Your task to perform on an android device: Search for sushi restaurants on Maps Image 0: 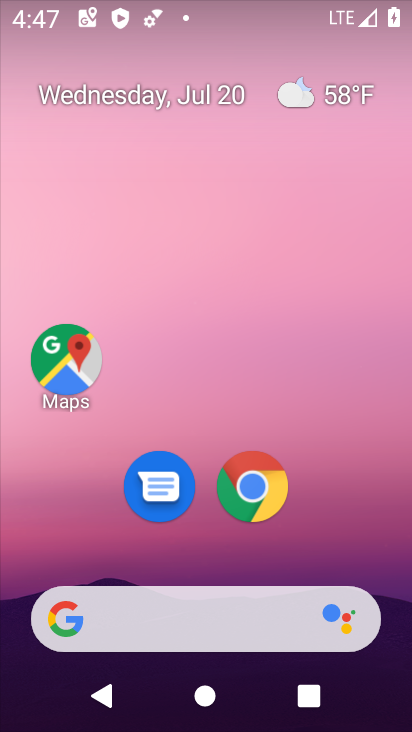
Step 0: click (77, 354)
Your task to perform on an android device: Search for sushi restaurants on Maps Image 1: 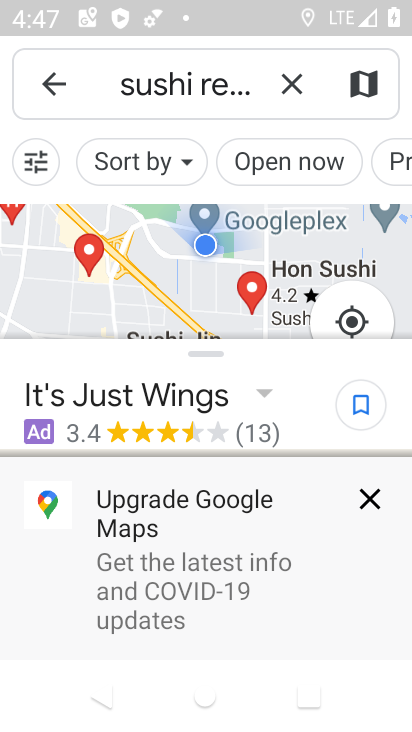
Step 1: click (290, 82)
Your task to perform on an android device: Search for sushi restaurants on Maps Image 2: 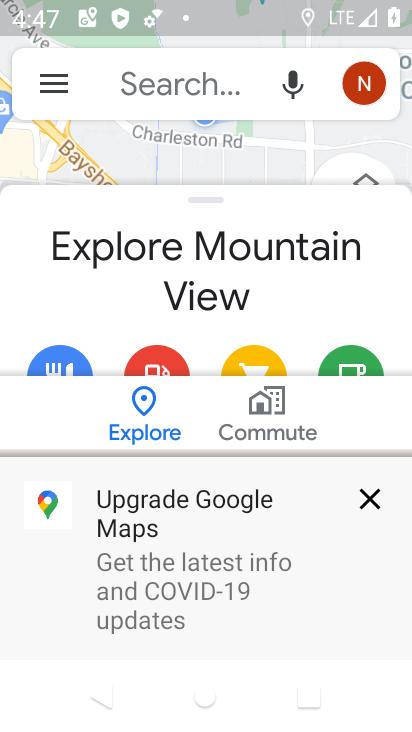
Step 2: click (166, 88)
Your task to perform on an android device: Search for sushi restaurants on Maps Image 3: 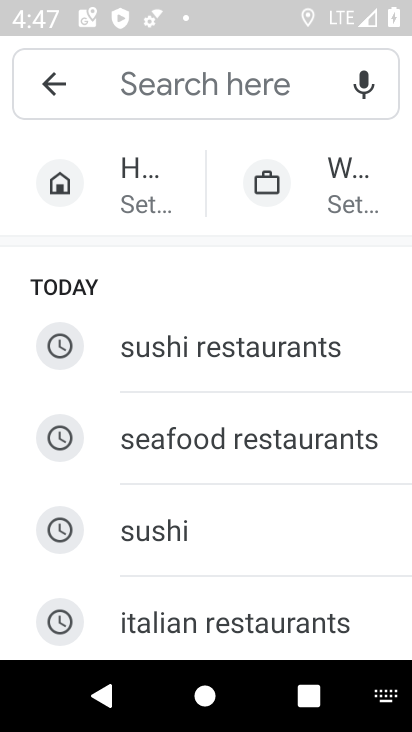
Step 3: type "sushi"
Your task to perform on an android device: Search for sushi restaurants on Maps Image 4: 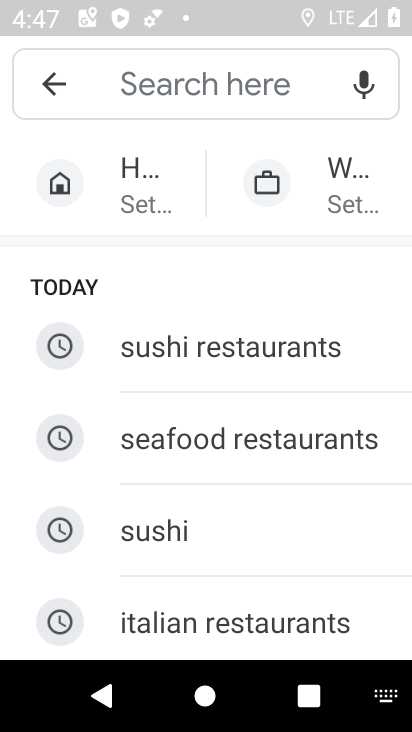
Step 4: click (277, 347)
Your task to perform on an android device: Search for sushi restaurants on Maps Image 5: 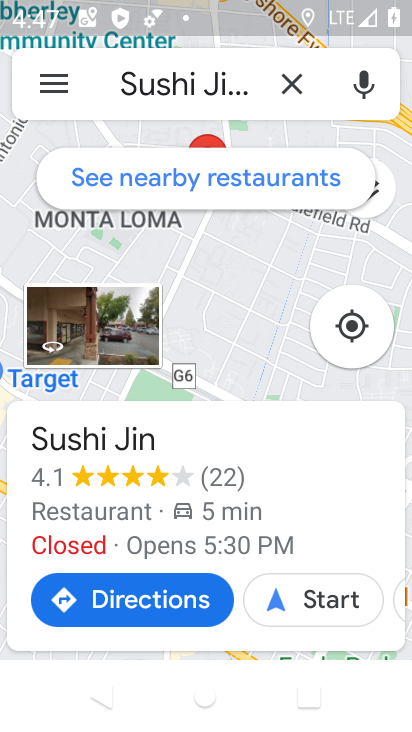
Step 5: task complete